Your task to perform on an android device: make emails show in primary in the gmail app Image 0: 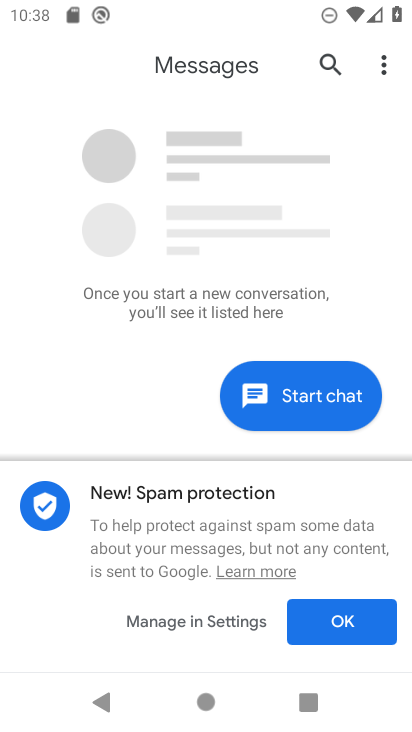
Step 0: press home button
Your task to perform on an android device: make emails show in primary in the gmail app Image 1: 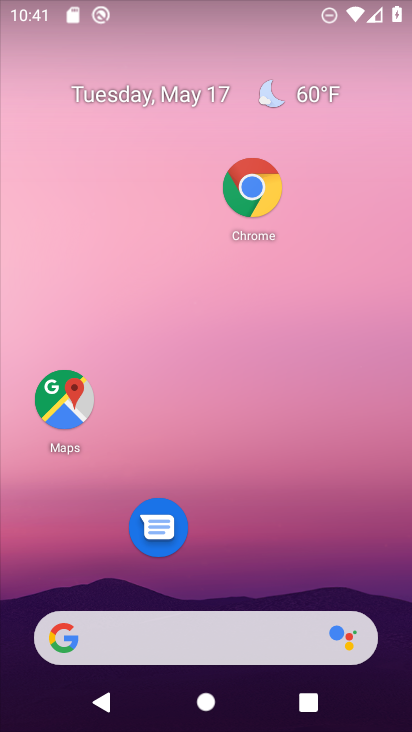
Step 1: drag from (309, 562) to (339, 143)
Your task to perform on an android device: make emails show in primary in the gmail app Image 2: 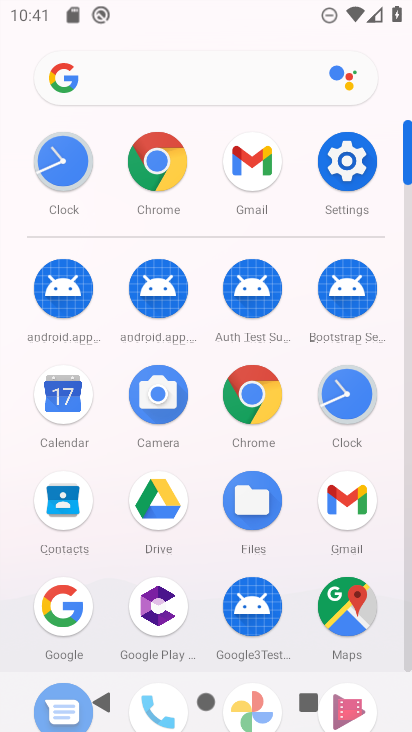
Step 2: click (348, 189)
Your task to perform on an android device: make emails show in primary in the gmail app Image 3: 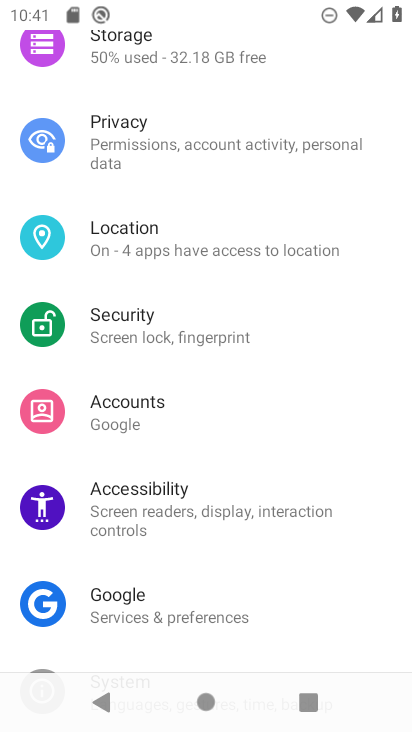
Step 3: press home button
Your task to perform on an android device: make emails show in primary in the gmail app Image 4: 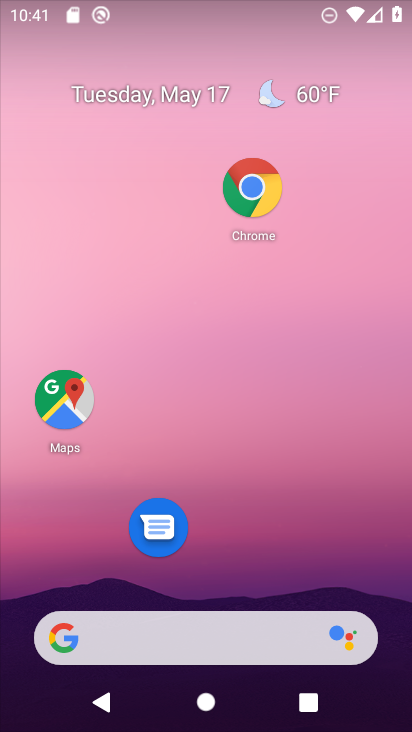
Step 4: drag from (248, 564) to (271, 136)
Your task to perform on an android device: make emails show in primary in the gmail app Image 5: 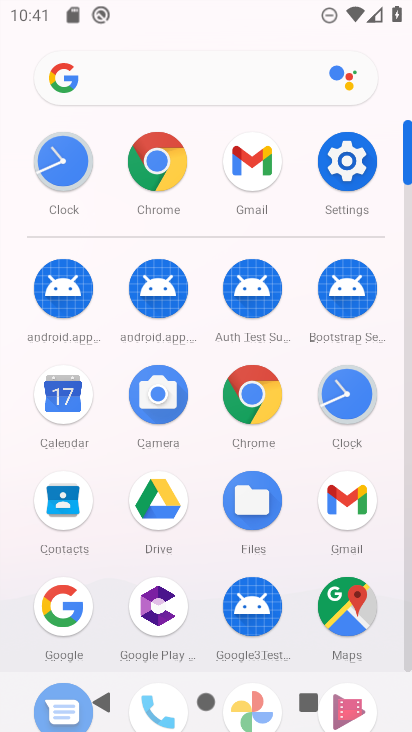
Step 5: click (264, 153)
Your task to perform on an android device: make emails show in primary in the gmail app Image 6: 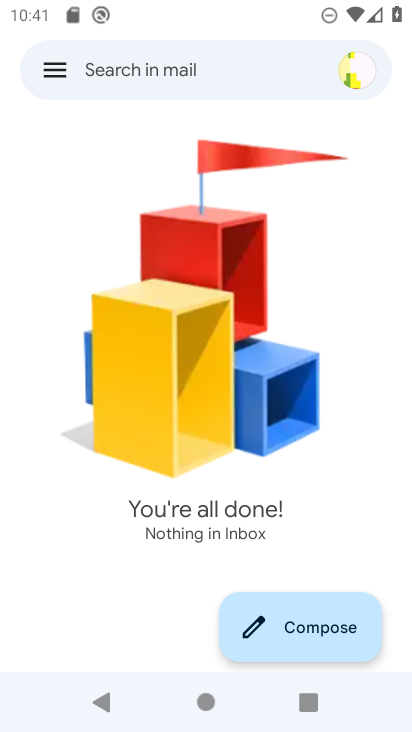
Step 6: click (62, 86)
Your task to perform on an android device: make emails show in primary in the gmail app Image 7: 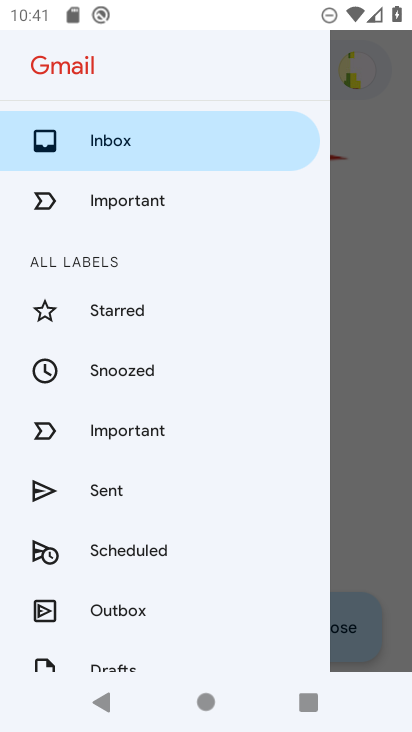
Step 7: drag from (131, 493) to (226, 103)
Your task to perform on an android device: make emails show in primary in the gmail app Image 8: 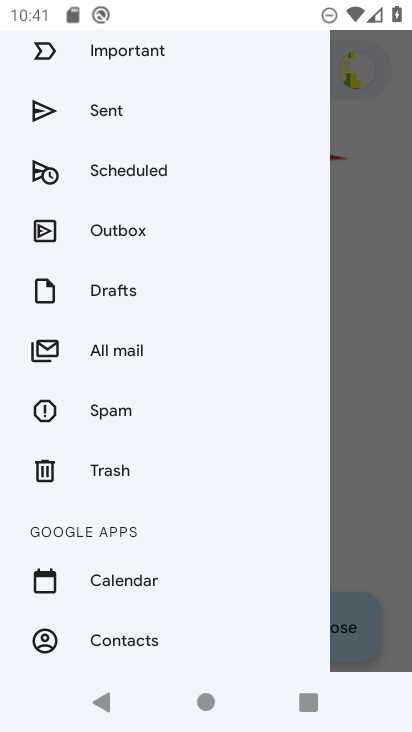
Step 8: drag from (136, 583) to (177, 190)
Your task to perform on an android device: make emails show in primary in the gmail app Image 9: 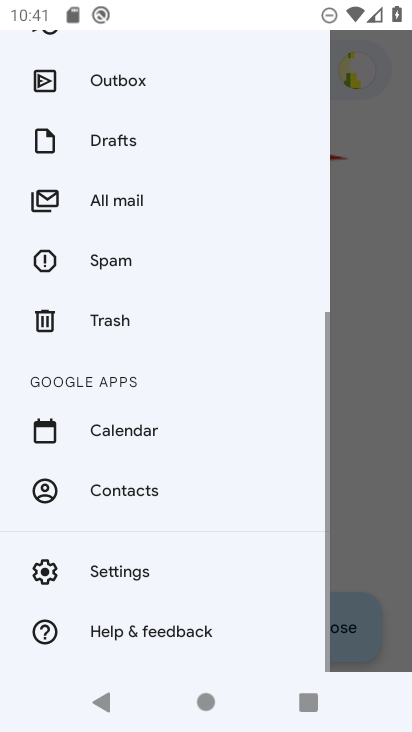
Step 9: click (141, 557)
Your task to perform on an android device: make emails show in primary in the gmail app Image 10: 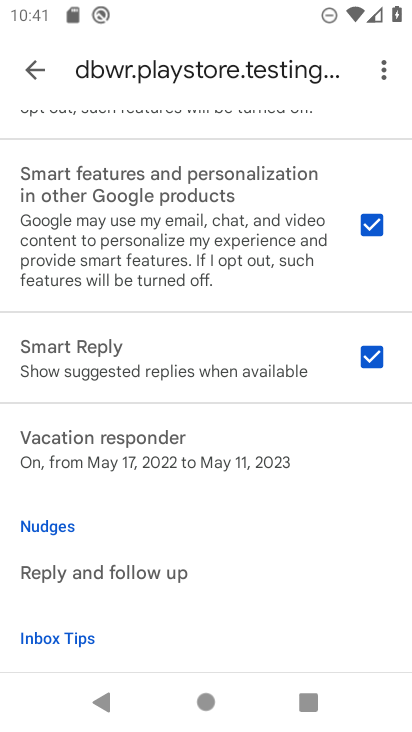
Step 10: drag from (177, 377) to (227, 193)
Your task to perform on an android device: make emails show in primary in the gmail app Image 11: 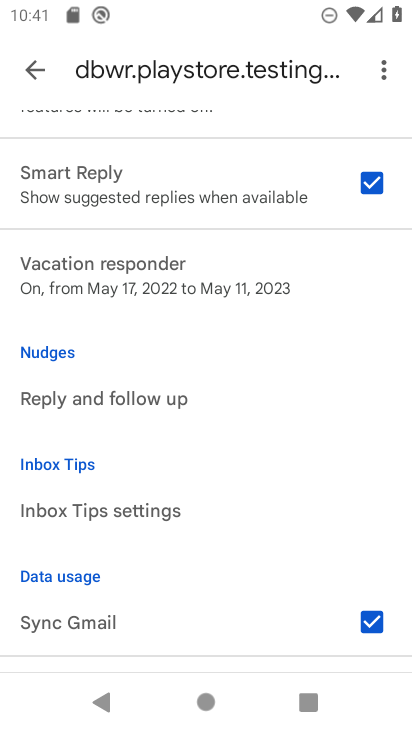
Step 11: drag from (227, 193) to (224, 638)
Your task to perform on an android device: make emails show in primary in the gmail app Image 12: 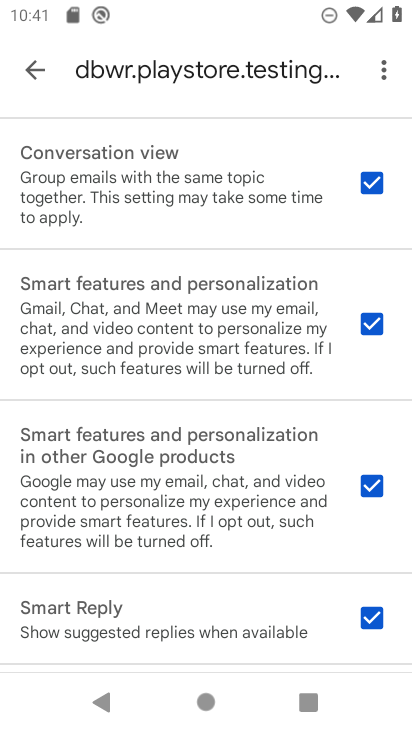
Step 12: drag from (141, 171) to (157, 620)
Your task to perform on an android device: make emails show in primary in the gmail app Image 13: 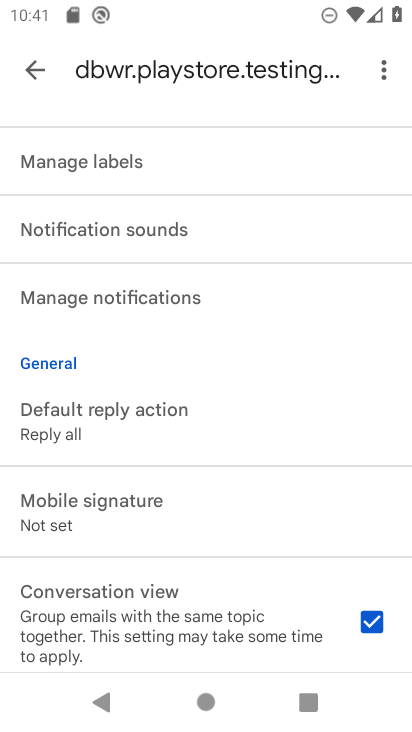
Step 13: drag from (216, 258) to (224, 577)
Your task to perform on an android device: make emails show in primary in the gmail app Image 14: 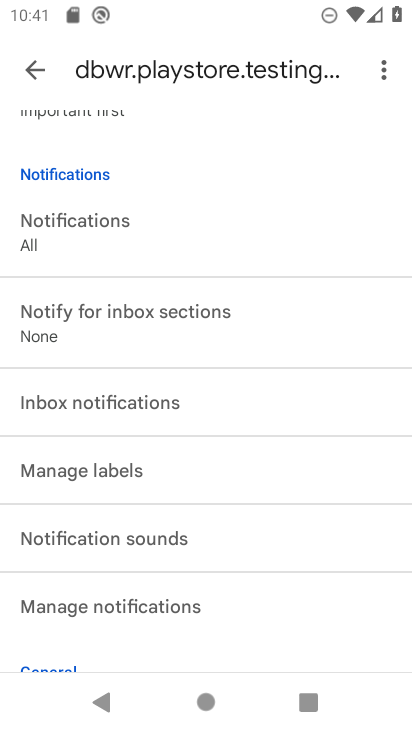
Step 14: drag from (236, 260) to (231, 530)
Your task to perform on an android device: make emails show in primary in the gmail app Image 15: 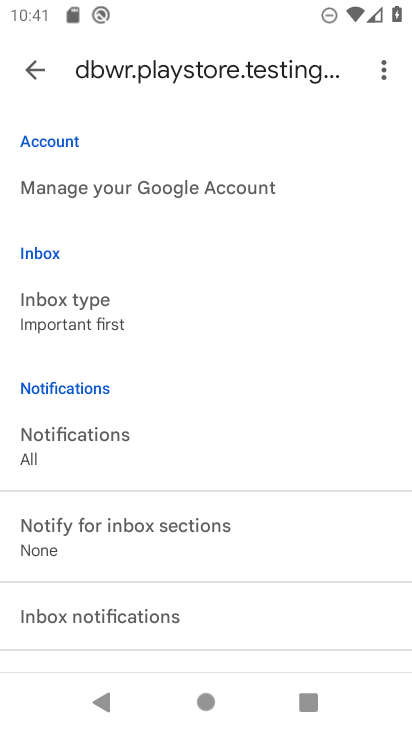
Step 15: click (186, 442)
Your task to perform on an android device: make emails show in primary in the gmail app Image 16: 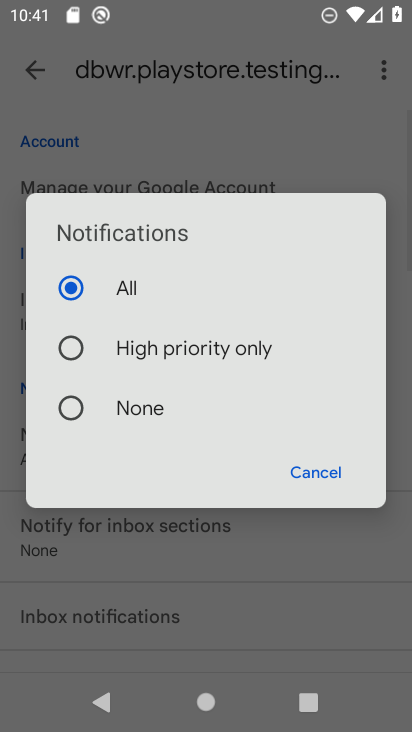
Step 16: click (303, 467)
Your task to perform on an android device: make emails show in primary in the gmail app Image 17: 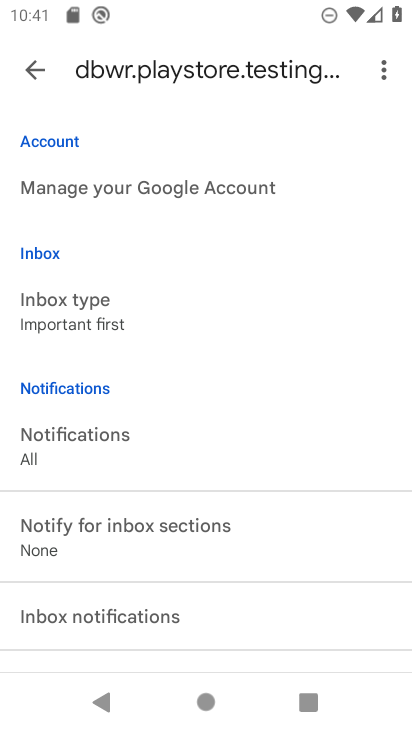
Step 17: click (216, 606)
Your task to perform on an android device: make emails show in primary in the gmail app Image 18: 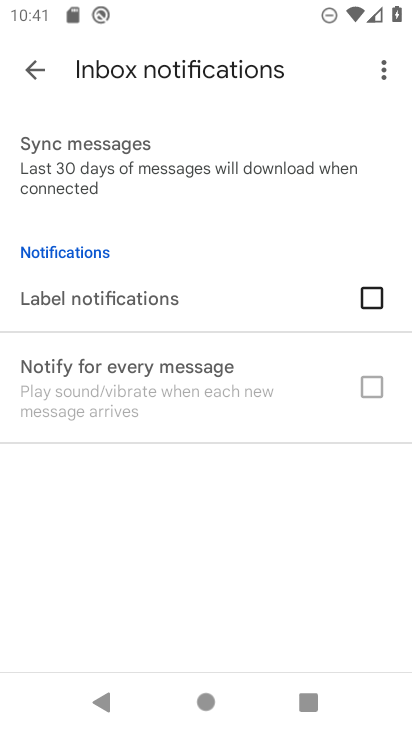
Step 18: task complete